Your task to perform on an android device: Open the stopwatch Image 0: 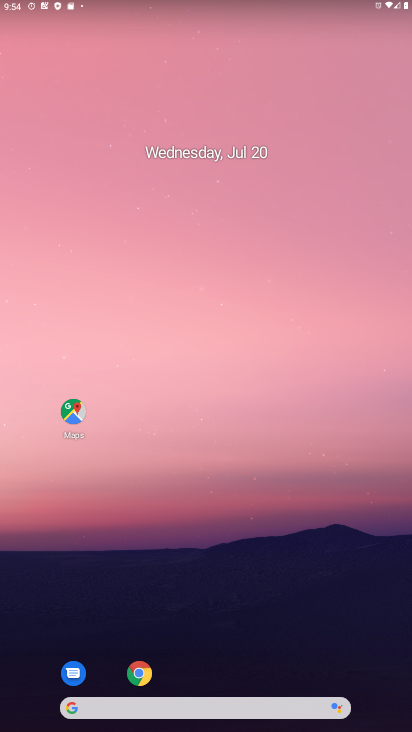
Step 0: drag from (238, 731) to (233, 255)
Your task to perform on an android device: Open the stopwatch Image 1: 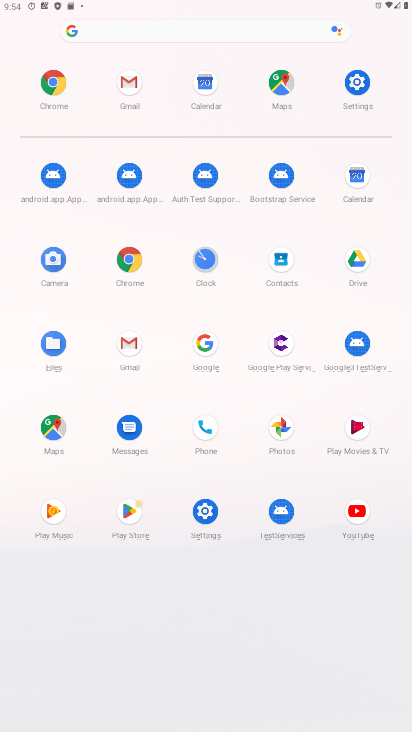
Step 1: click (206, 261)
Your task to perform on an android device: Open the stopwatch Image 2: 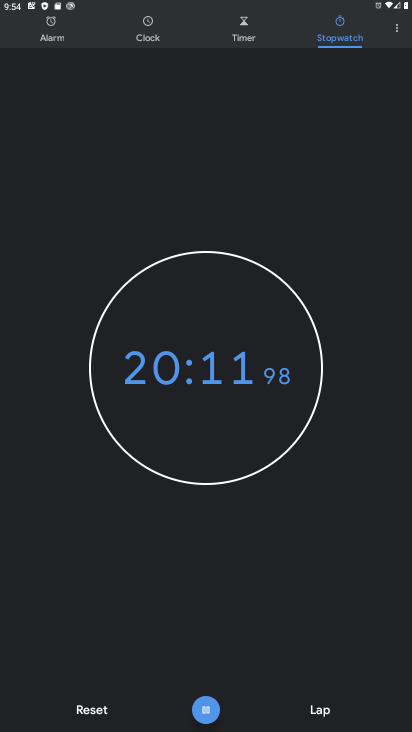
Step 2: task complete